Your task to perform on an android device: open the mobile data screen to see how much data has been used Image 0: 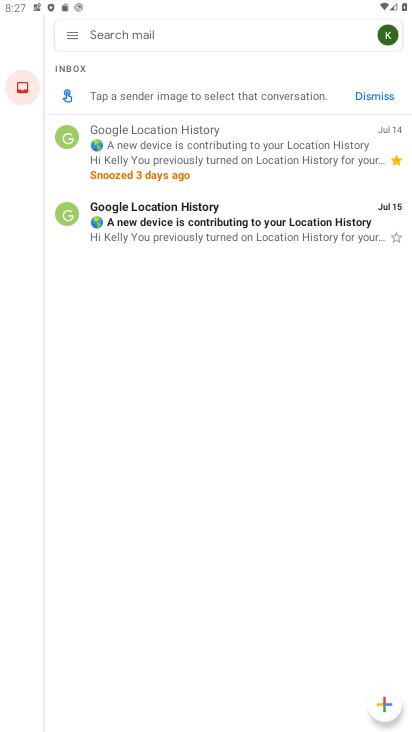
Step 0: press home button
Your task to perform on an android device: open the mobile data screen to see how much data has been used Image 1: 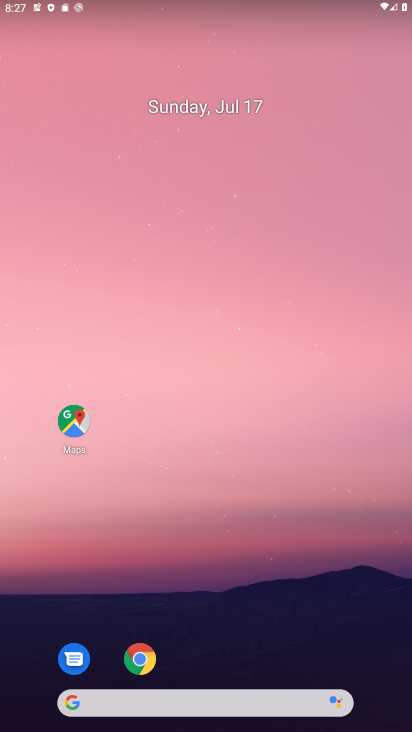
Step 1: drag from (209, 644) to (220, 133)
Your task to perform on an android device: open the mobile data screen to see how much data has been used Image 2: 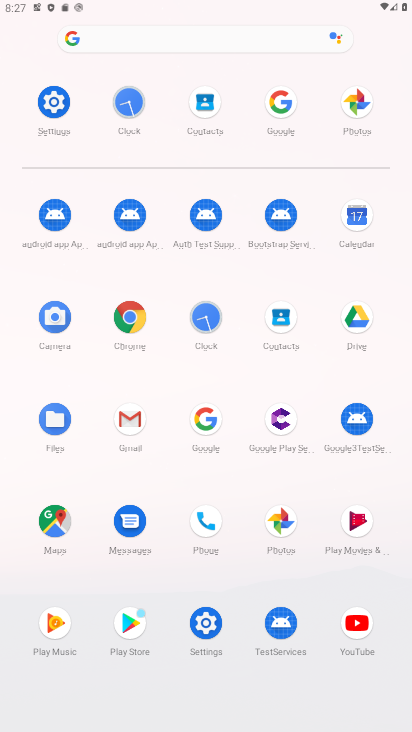
Step 2: click (61, 89)
Your task to perform on an android device: open the mobile data screen to see how much data has been used Image 3: 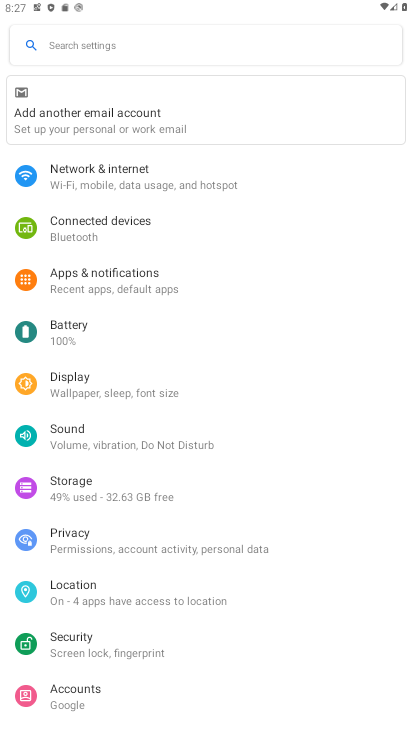
Step 3: click (174, 191)
Your task to perform on an android device: open the mobile data screen to see how much data has been used Image 4: 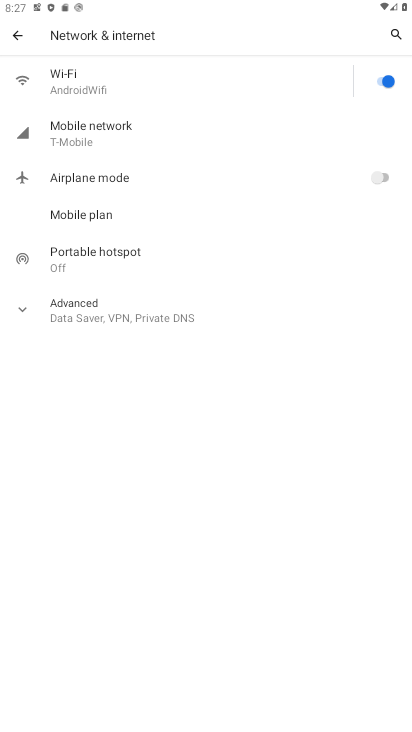
Step 4: click (142, 125)
Your task to perform on an android device: open the mobile data screen to see how much data has been used Image 5: 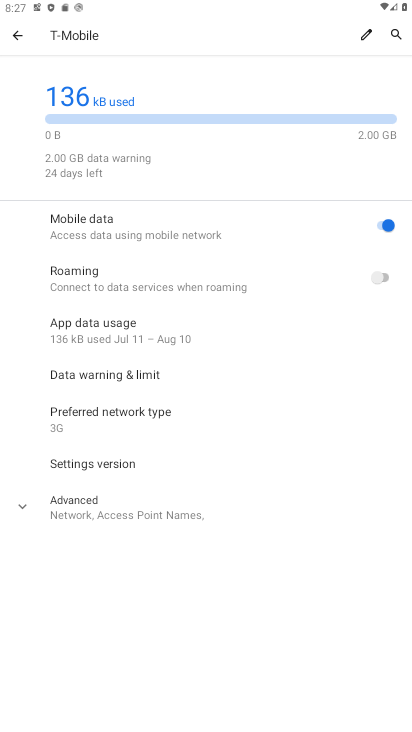
Step 5: click (137, 337)
Your task to perform on an android device: open the mobile data screen to see how much data has been used Image 6: 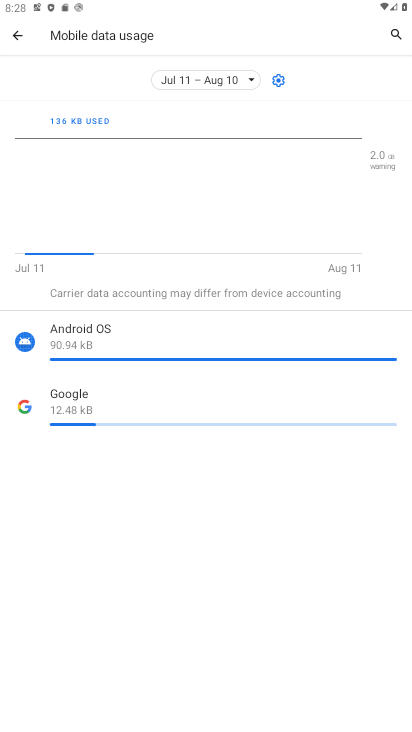
Step 6: task complete